Your task to perform on an android device: Open calendar and show me the first week of next month Image 0: 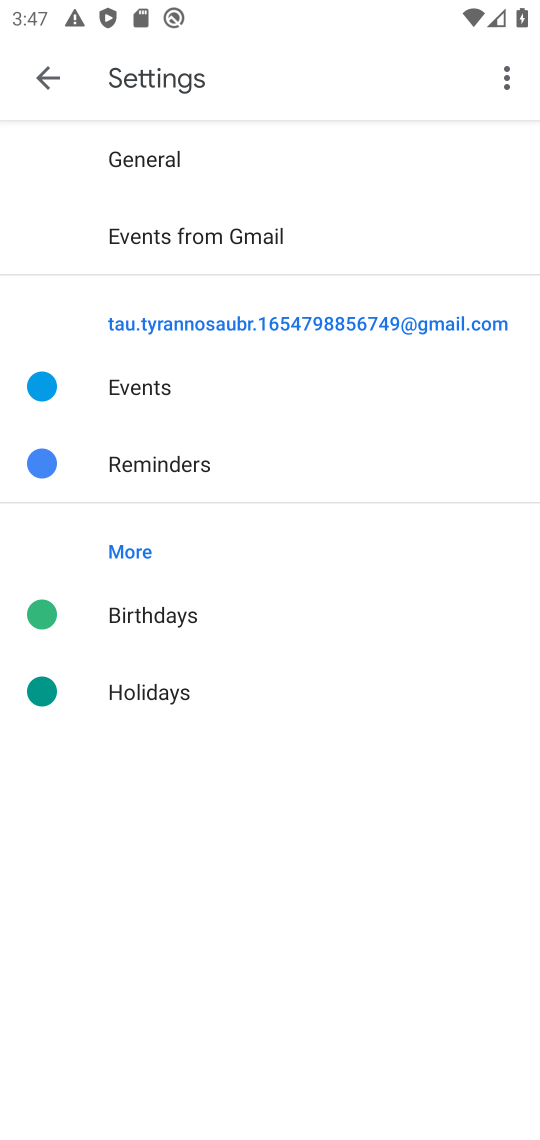
Step 0: press home button
Your task to perform on an android device: Open calendar and show me the first week of next month Image 1: 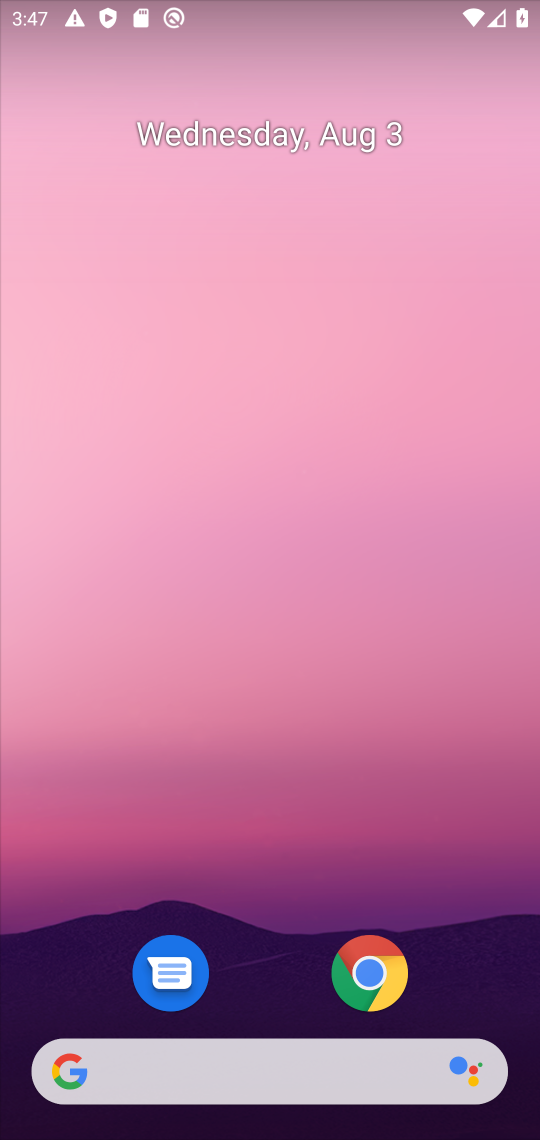
Step 1: drag from (241, 765) to (187, 207)
Your task to perform on an android device: Open calendar and show me the first week of next month Image 2: 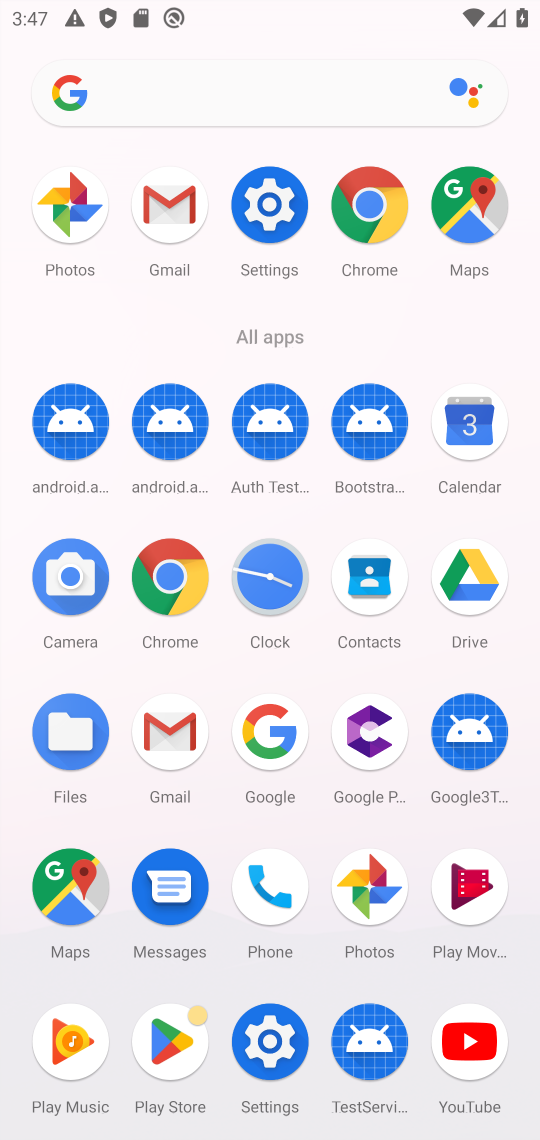
Step 2: click (471, 448)
Your task to perform on an android device: Open calendar and show me the first week of next month Image 3: 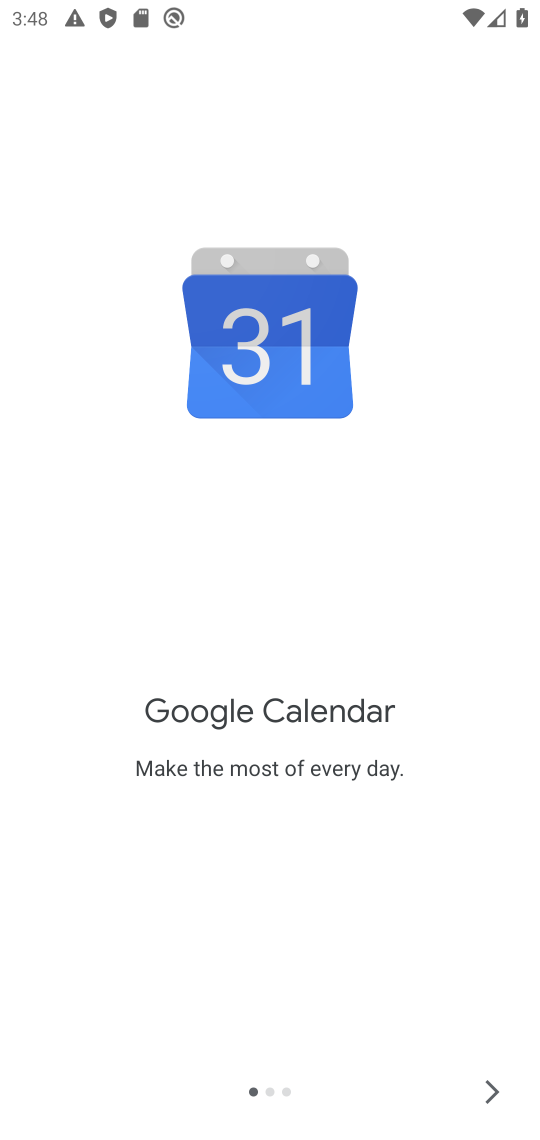
Step 3: click (488, 1114)
Your task to perform on an android device: Open calendar and show me the first week of next month Image 4: 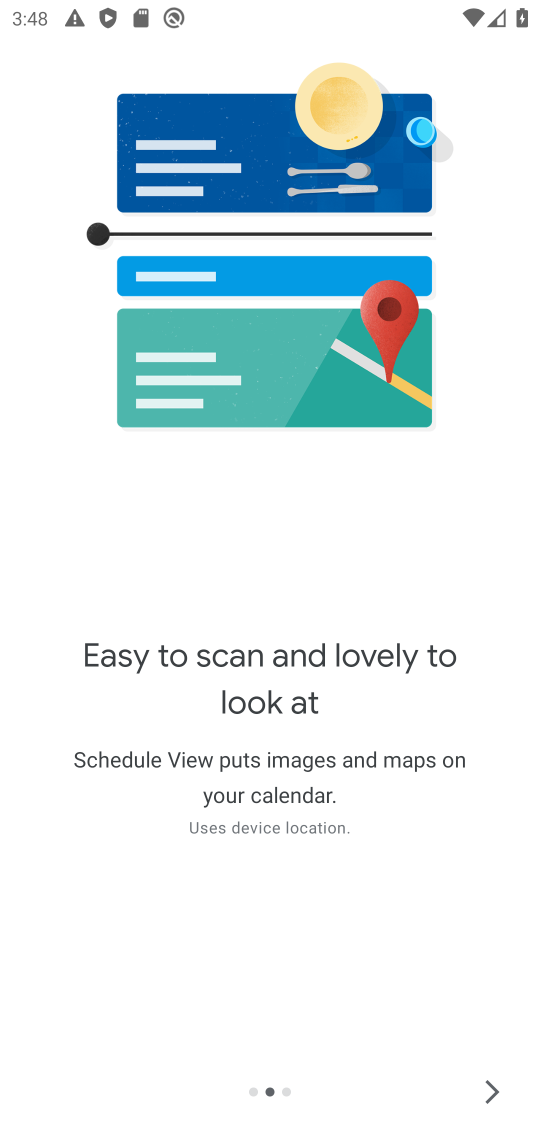
Step 4: press home button
Your task to perform on an android device: Open calendar and show me the first week of next month Image 5: 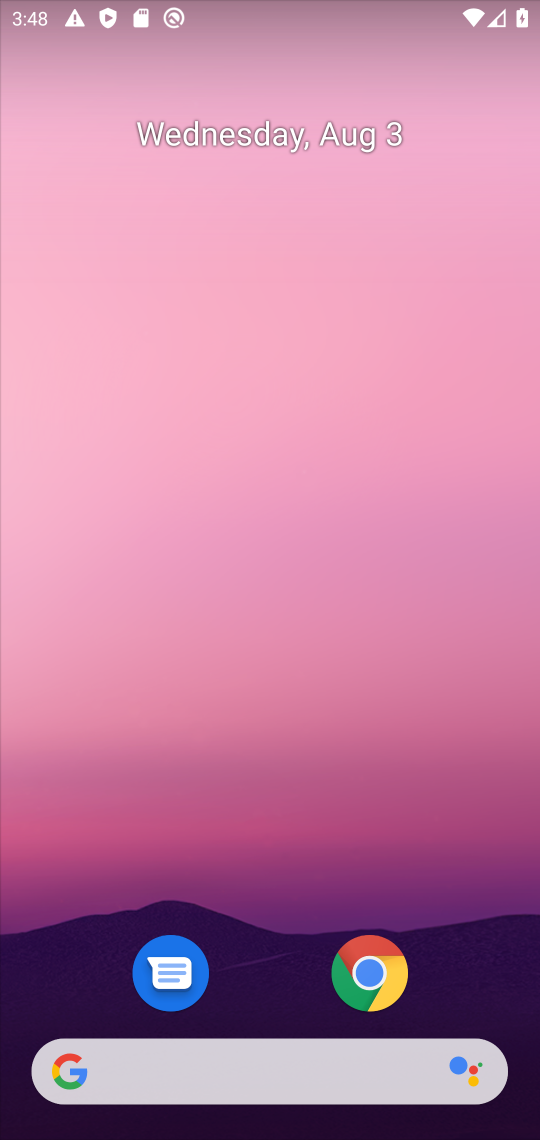
Step 5: drag from (314, 931) to (298, 65)
Your task to perform on an android device: Open calendar and show me the first week of next month Image 6: 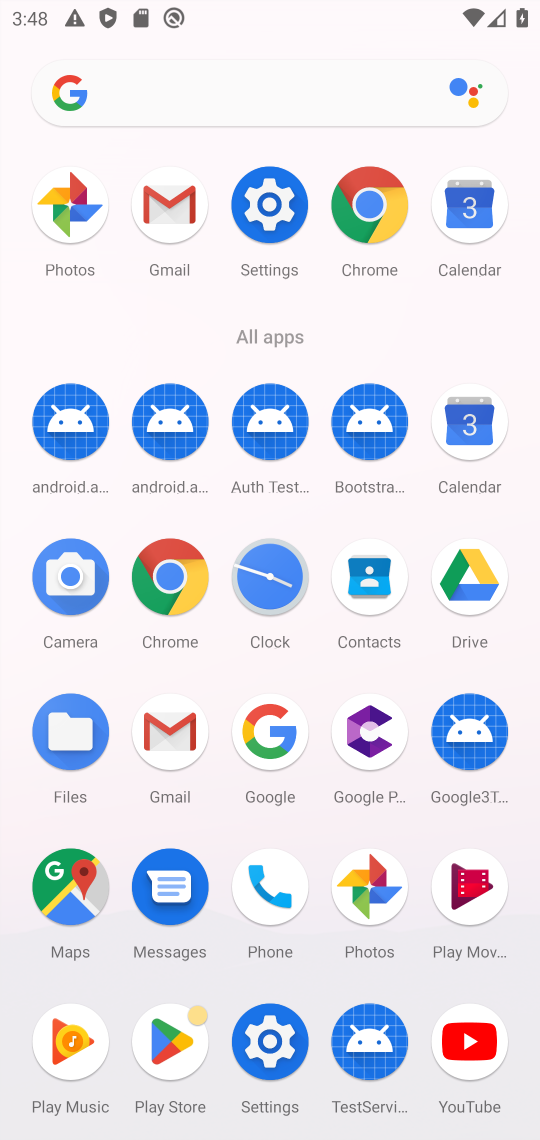
Step 6: click (468, 428)
Your task to perform on an android device: Open calendar and show me the first week of next month Image 7: 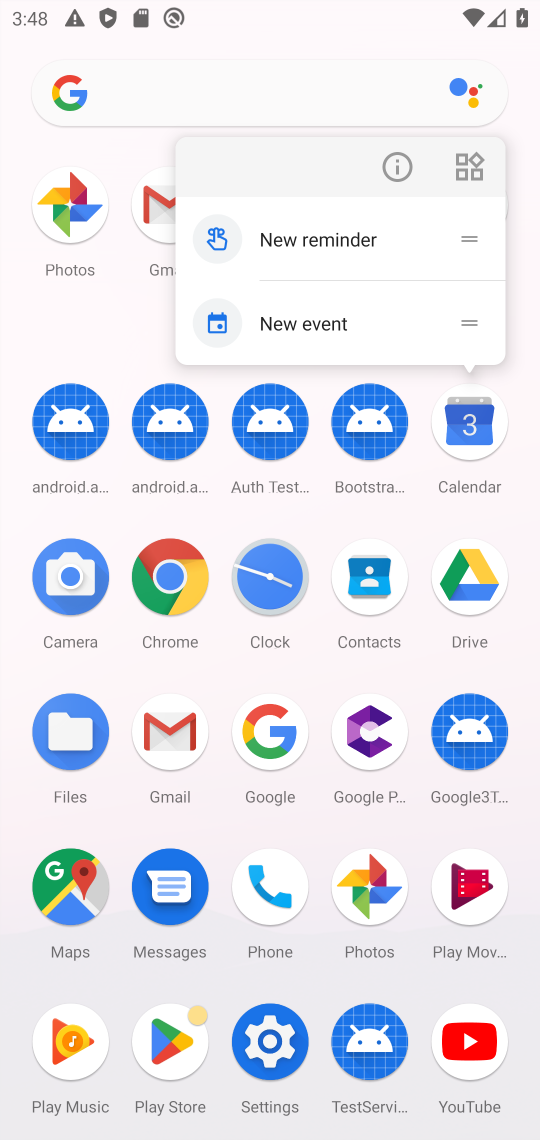
Step 7: click (468, 428)
Your task to perform on an android device: Open calendar and show me the first week of next month Image 8: 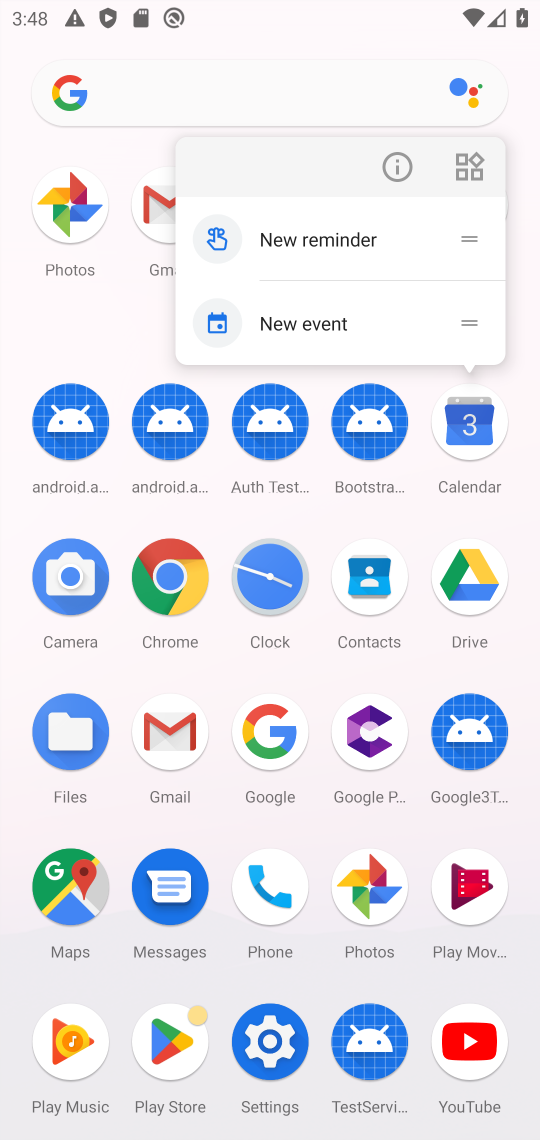
Step 8: click (468, 428)
Your task to perform on an android device: Open calendar and show me the first week of next month Image 9: 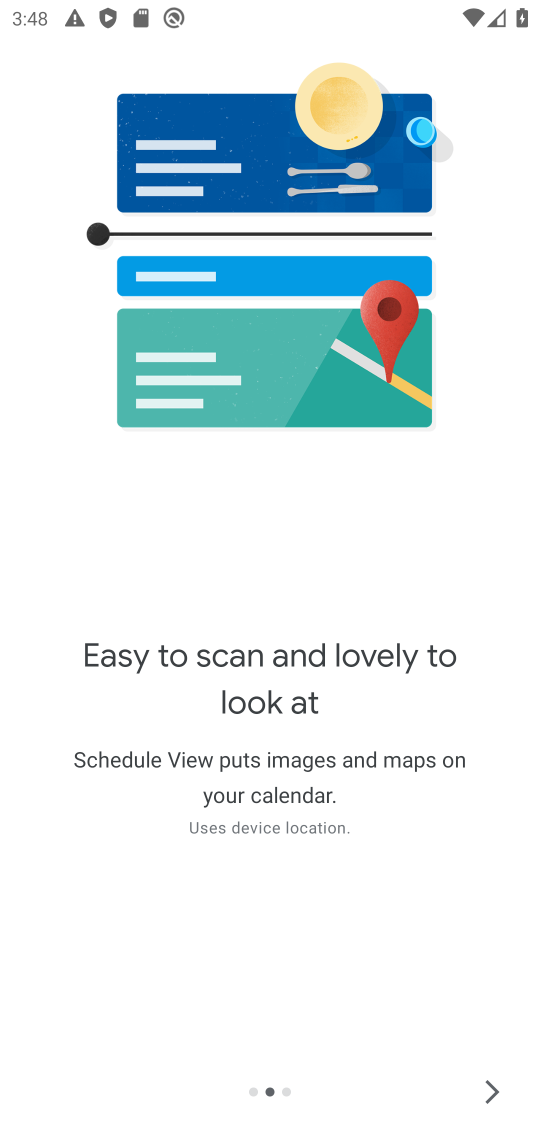
Step 9: click (499, 1094)
Your task to perform on an android device: Open calendar and show me the first week of next month Image 10: 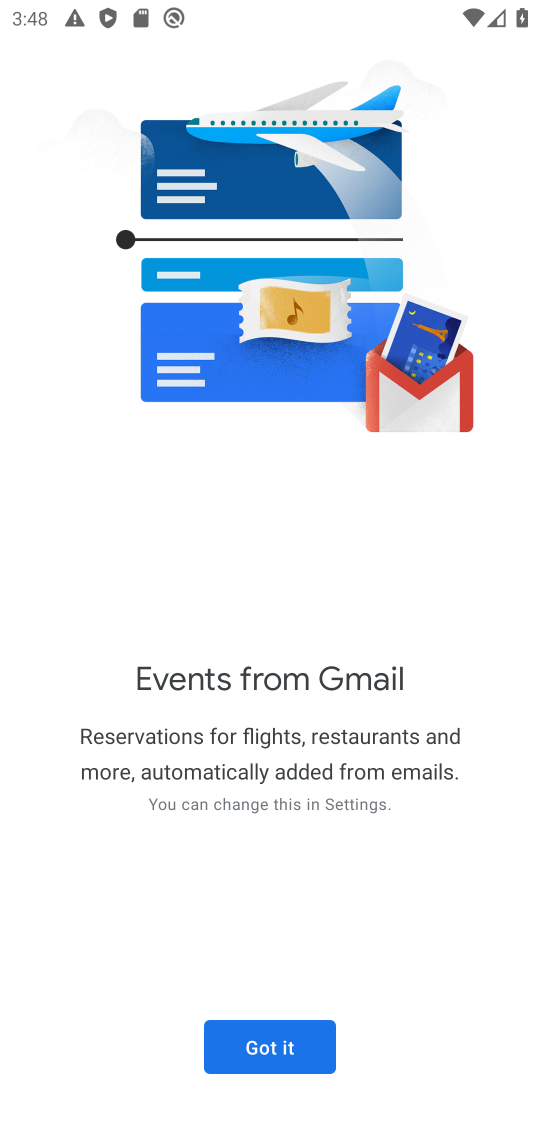
Step 10: click (305, 1054)
Your task to perform on an android device: Open calendar and show me the first week of next month Image 11: 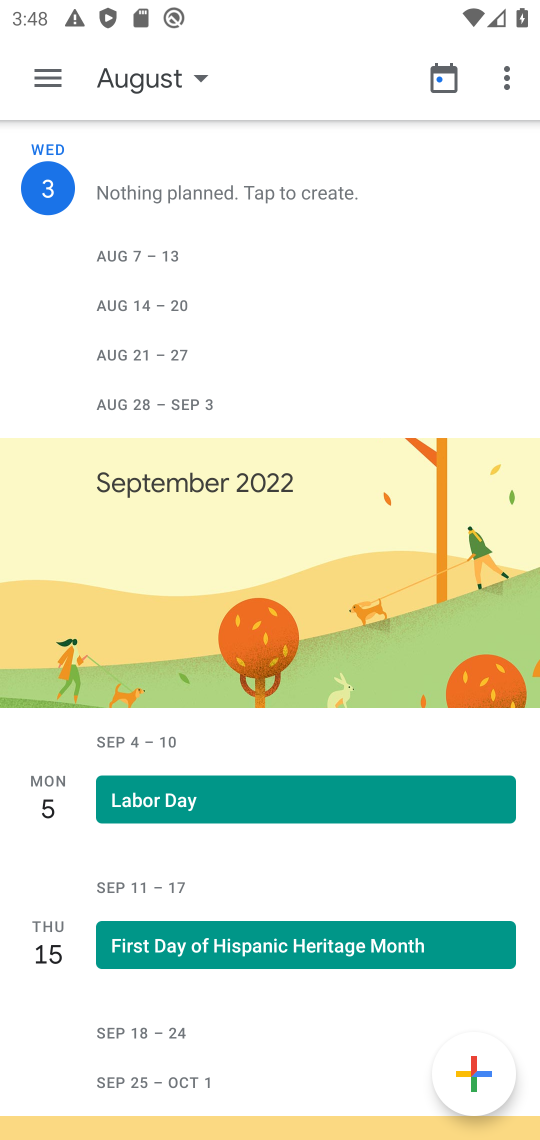
Step 11: click (49, 85)
Your task to perform on an android device: Open calendar and show me the first week of next month Image 12: 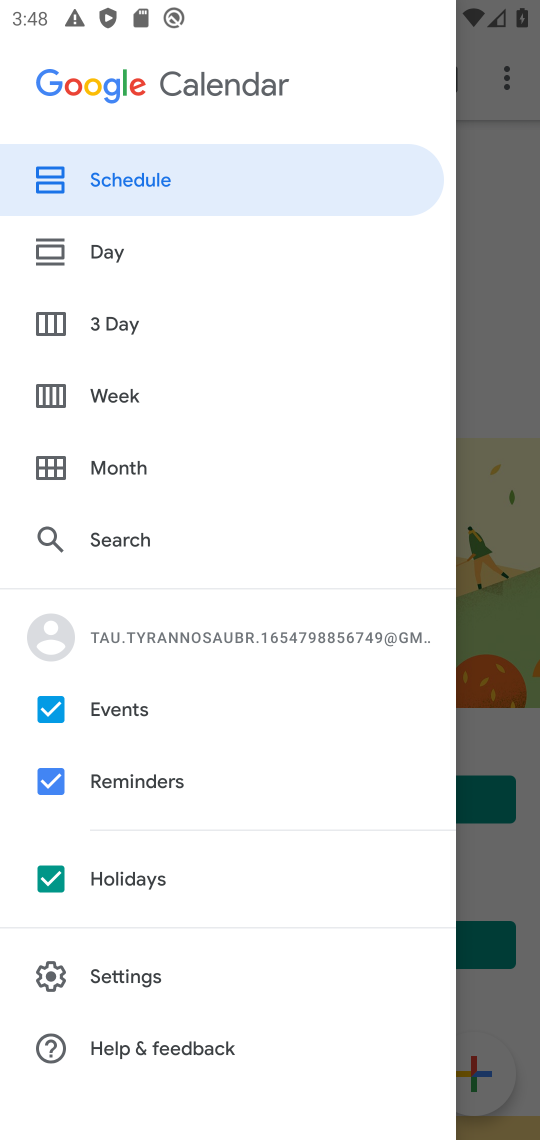
Step 12: click (64, 461)
Your task to perform on an android device: Open calendar and show me the first week of next month Image 13: 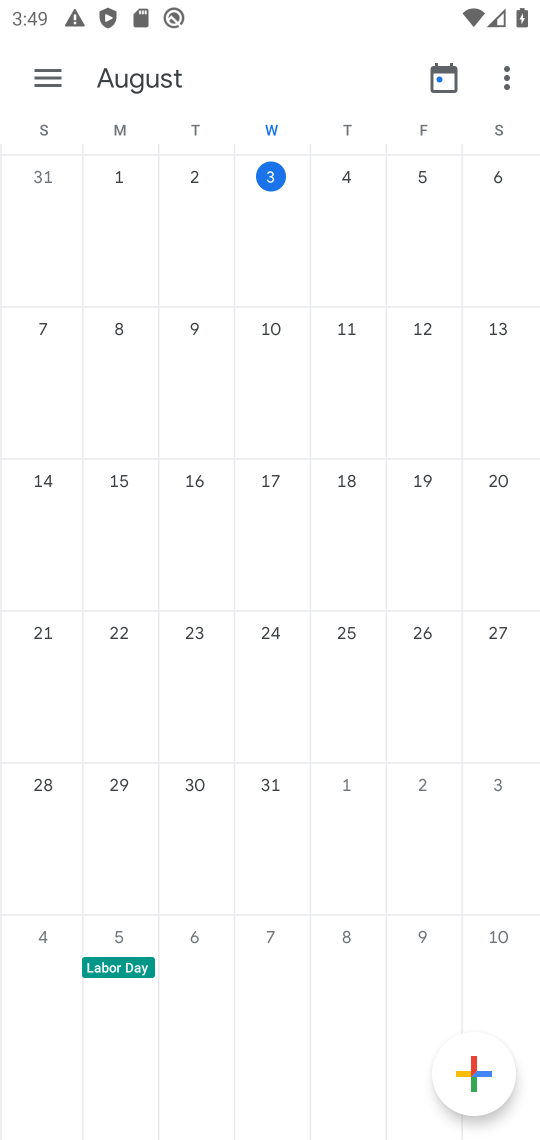
Step 13: drag from (482, 535) to (43, 599)
Your task to perform on an android device: Open calendar and show me the first week of next month Image 14: 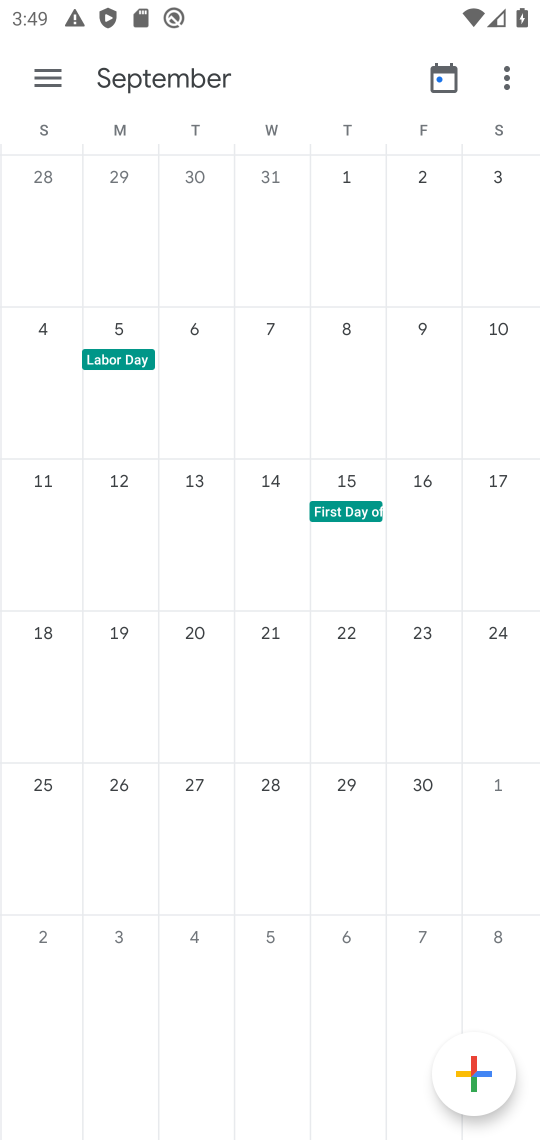
Step 14: click (41, 339)
Your task to perform on an android device: Open calendar and show me the first week of next month Image 15: 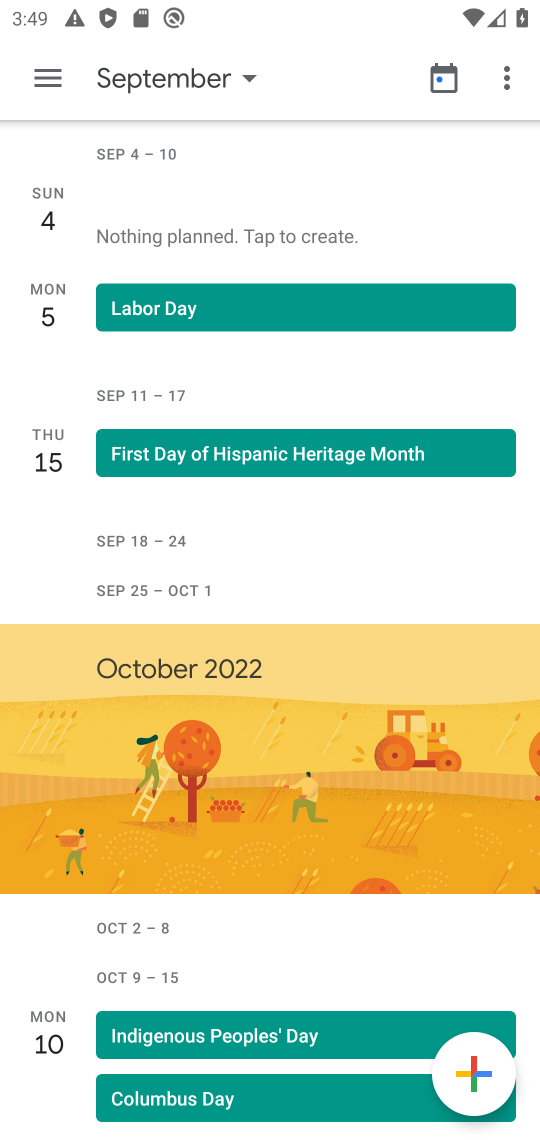
Step 15: task complete